Your task to perform on an android device: add a label to a message in the gmail app Image 0: 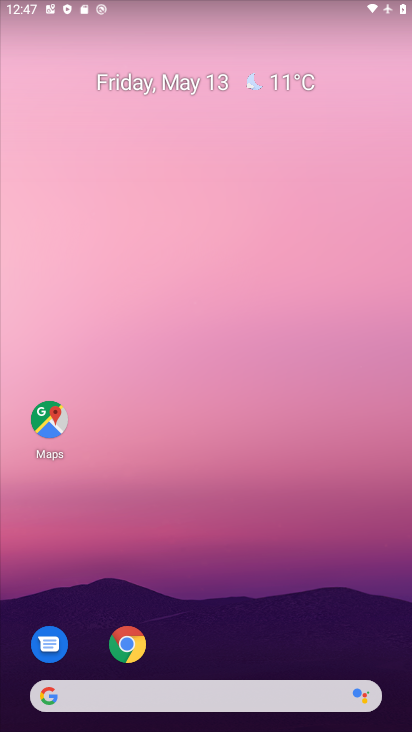
Step 0: drag from (190, 728) to (190, 4)
Your task to perform on an android device: add a label to a message in the gmail app Image 1: 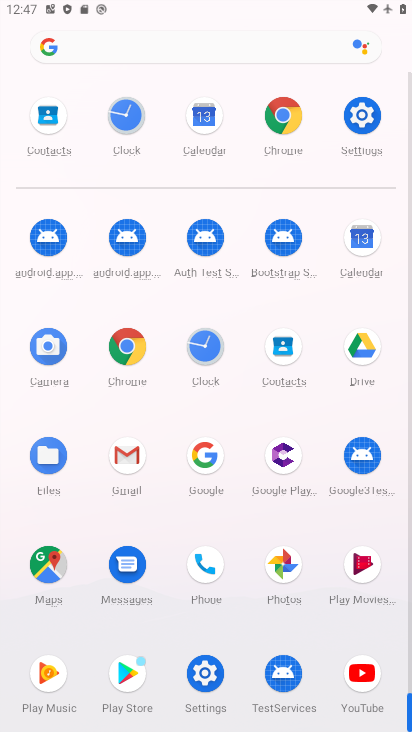
Step 1: click (130, 450)
Your task to perform on an android device: add a label to a message in the gmail app Image 2: 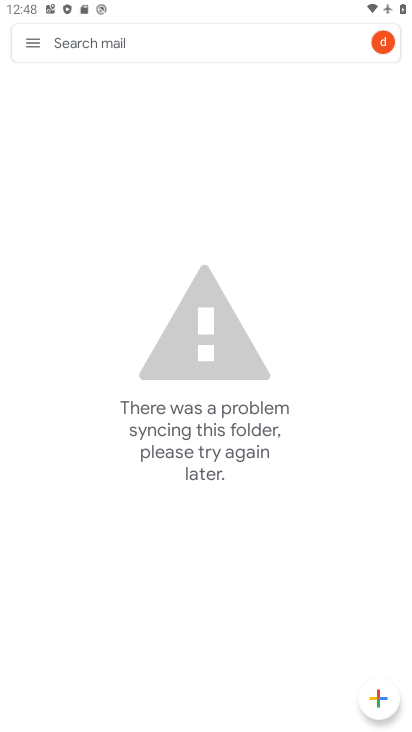
Step 2: task complete